Your task to perform on an android device: Go to battery settings Image 0: 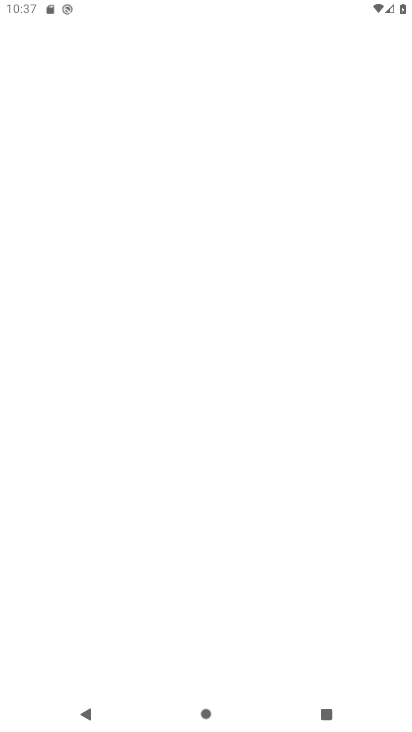
Step 0: drag from (293, 699) to (291, 232)
Your task to perform on an android device: Go to battery settings Image 1: 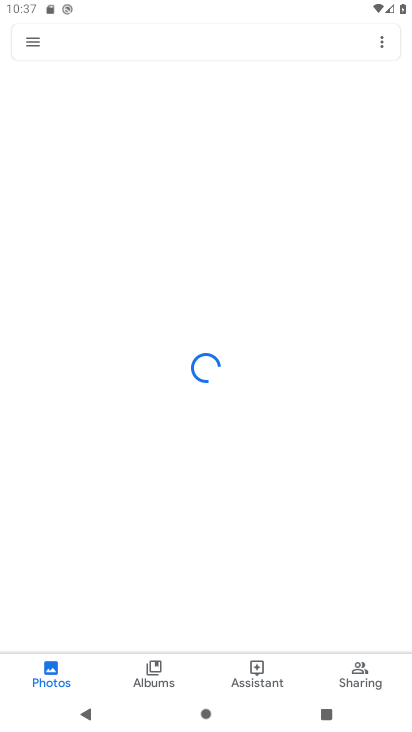
Step 1: press back button
Your task to perform on an android device: Go to battery settings Image 2: 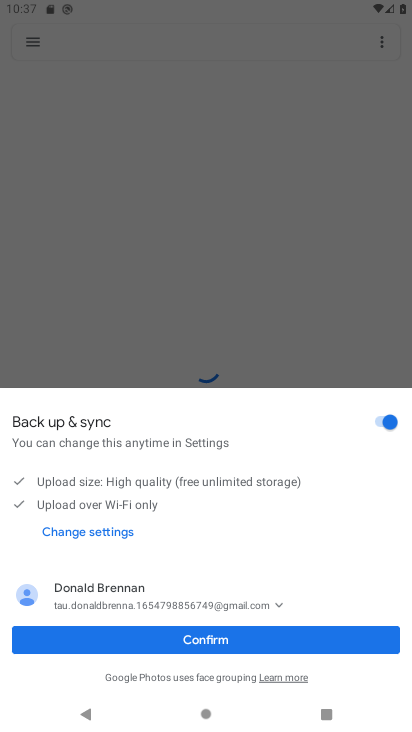
Step 2: press home button
Your task to perform on an android device: Go to battery settings Image 3: 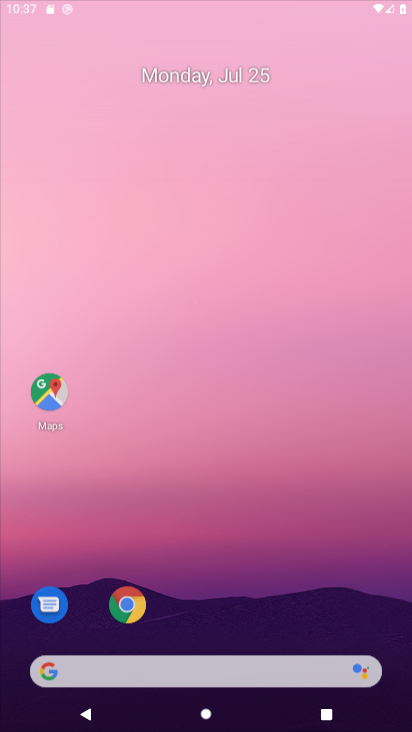
Step 3: click (222, 633)
Your task to perform on an android device: Go to battery settings Image 4: 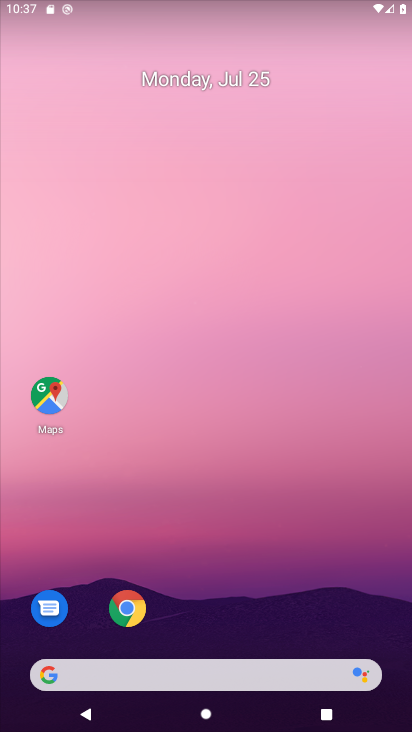
Step 4: drag from (238, 521) to (238, 160)
Your task to perform on an android device: Go to battery settings Image 5: 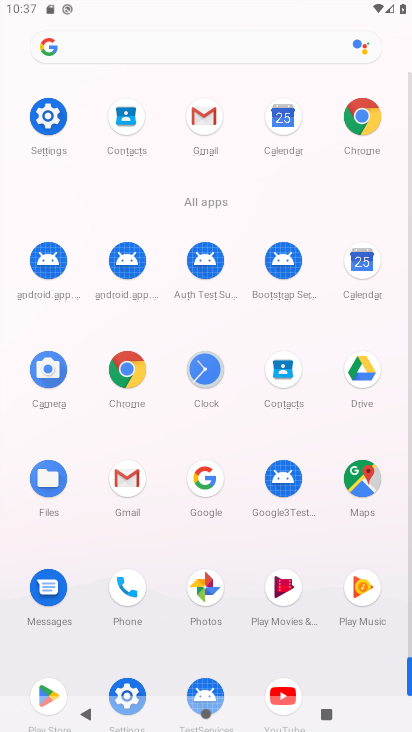
Step 5: click (43, 117)
Your task to perform on an android device: Go to battery settings Image 6: 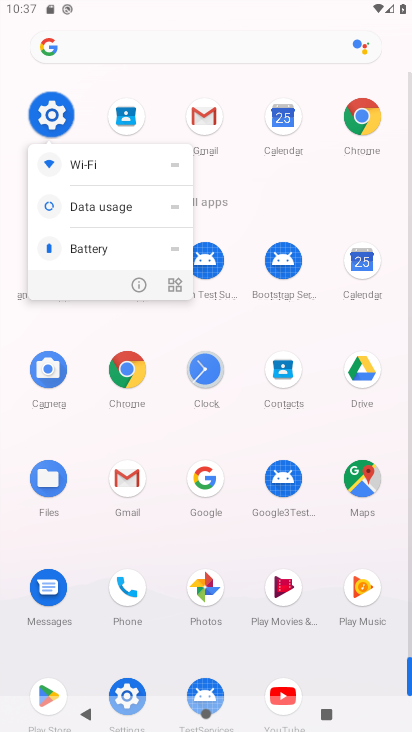
Step 6: click (49, 109)
Your task to perform on an android device: Go to battery settings Image 7: 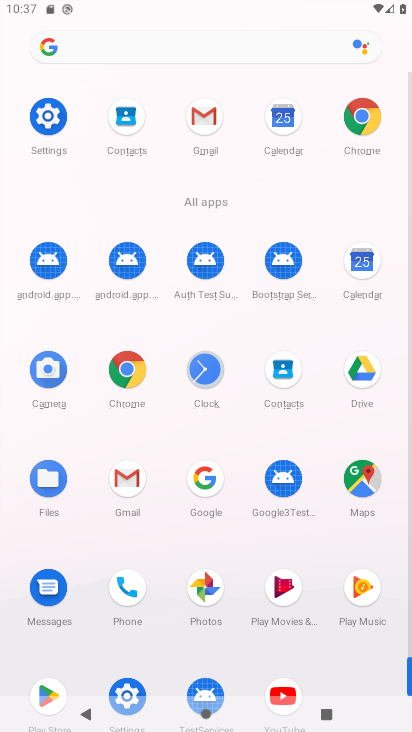
Step 7: click (53, 106)
Your task to perform on an android device: Go to battery settings Image 8: 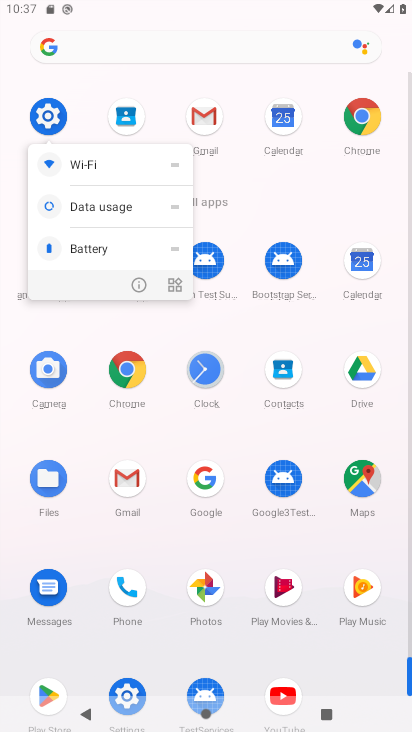
Step 8: click (48, 112)
Your task to perform on an android device: Go to battery settings Image 9: 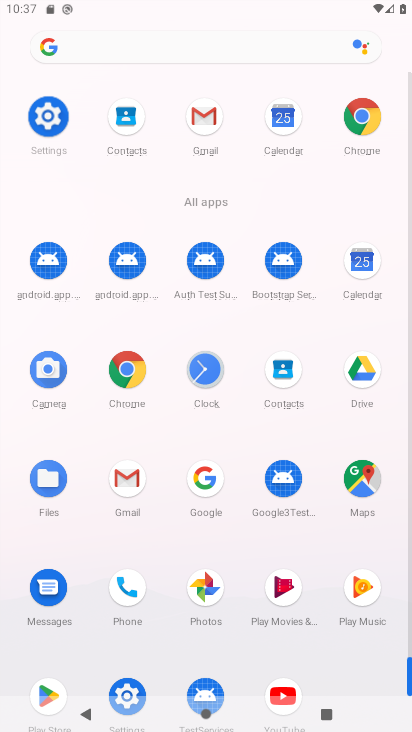
Step 9: click (48, 112)
Your task to perform on an android device: Go to battery settings Image 10: 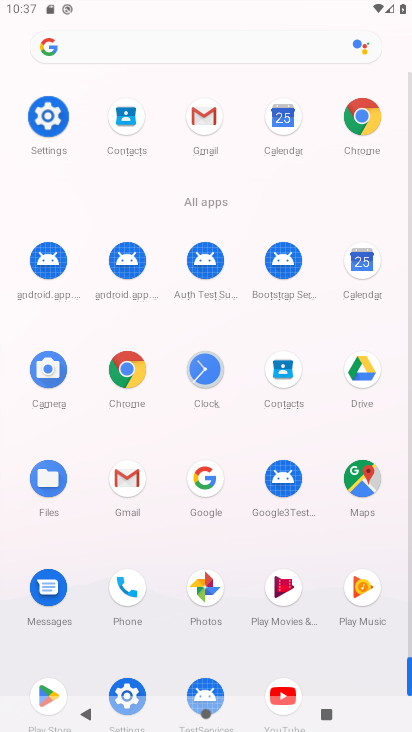
Step 10: click (47, 116)
Your task to perform on an android device: Go to battery settings Image 11: 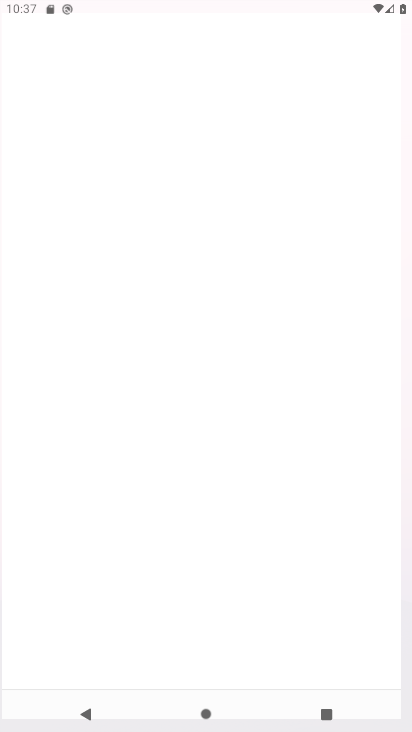
Step 11: click (47, 117)
Your task to perform on an android device: Go to battery settings Image 12: 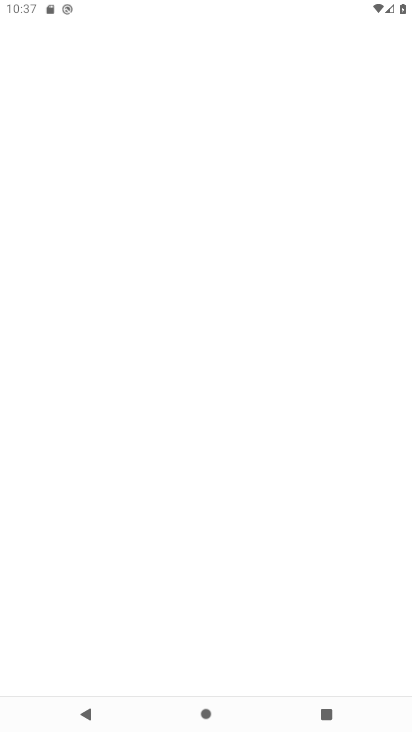
Step 12: click (46, 118)
Your task to perform on an android device: Go to battery settings Image 13: 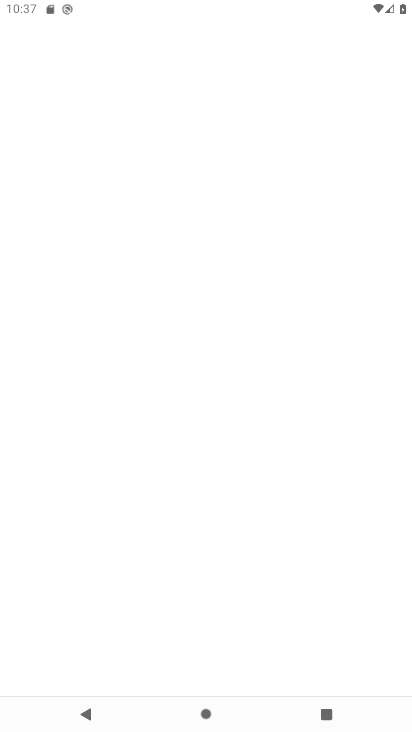
Step 13: click (46, 118)
Your task to perform on an android device: Go to battery settings Image 14: 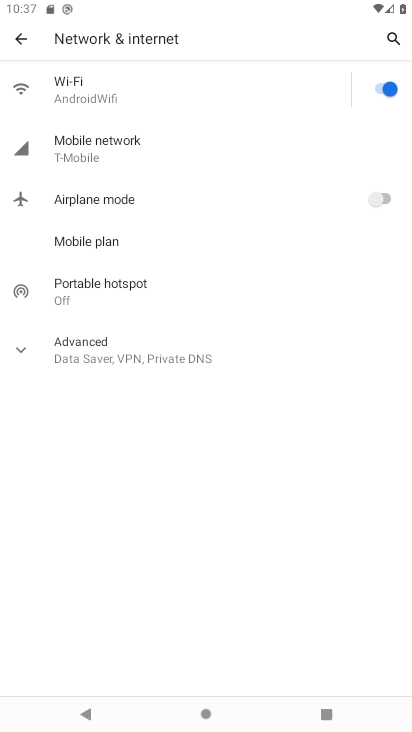
Step 14: drag from (177, 487) to (200, 170)
Your task to perform on an android device: Go to battery settings Image 15: 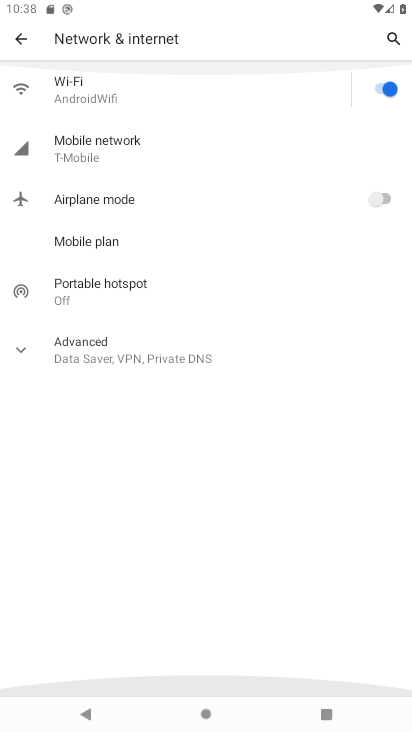
Step 15: click (23, 33)
Your task to perform on an android device: Go to battery settings Image 16: 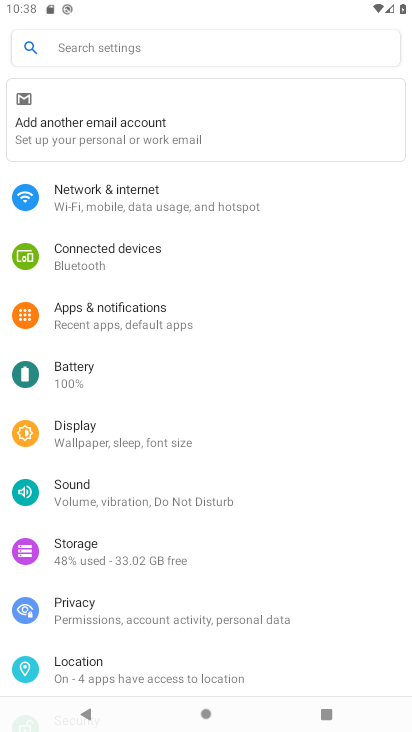
Step 16: click (68, 375)
Your task to perform on an android device: Go to battery settings Image 17: 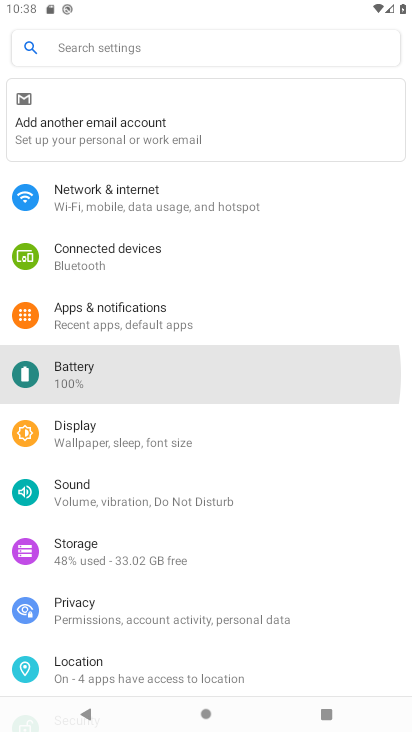
Step 17: click (68, 375)
Your task to perform on an android device: Go to battery settings Image 18: 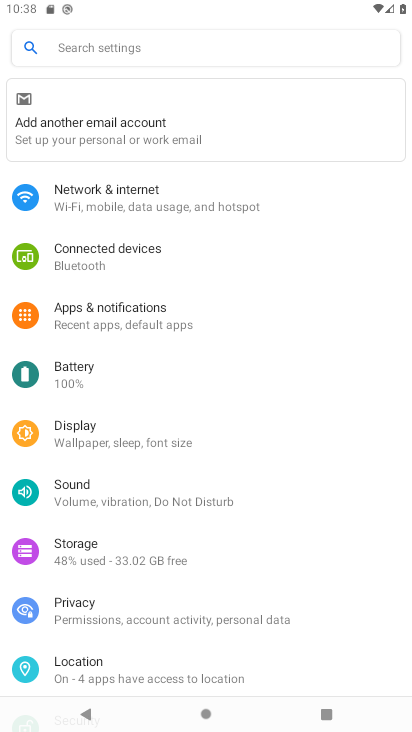
Step 18: click (68, 375)
Your task to perform on an android device: Go to battery settings Image 19: 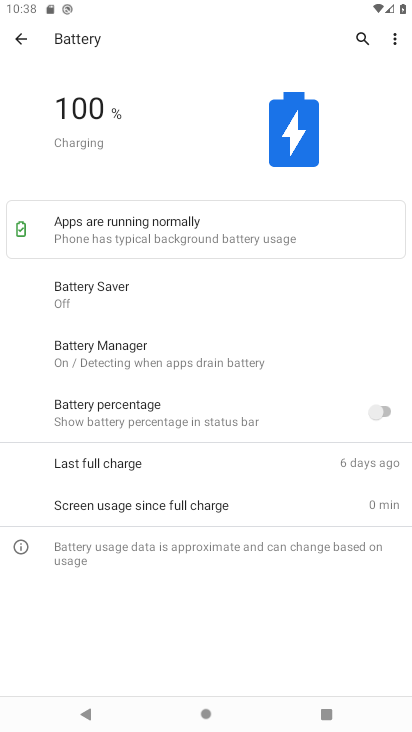
Step 19: task complete